Your task to perform on an android device: Open Chrome and go to the settings page Image 0: 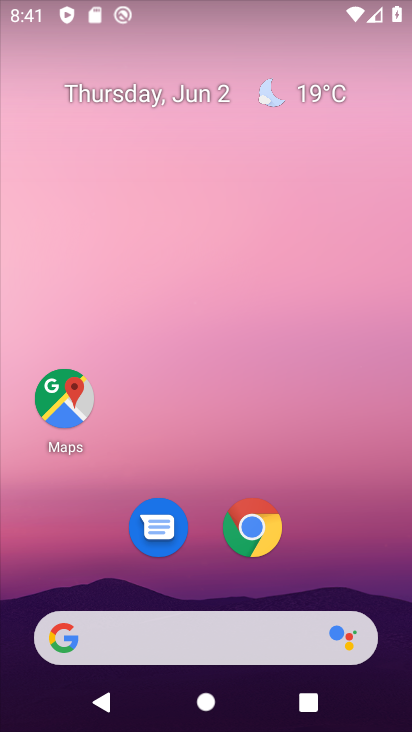
Step 0: click (334, 89)
Your task to perform on an android device: Open Chrome and go to the settings page Image 1: 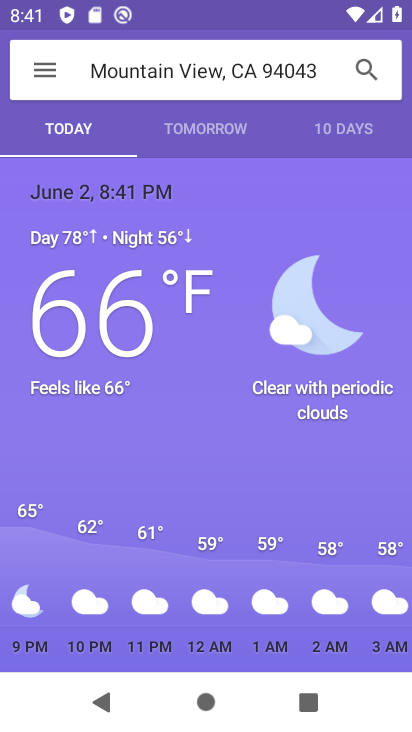
Step 1: press home button
Your task to perform on an android device: Open Chrome and go to the settings page Image 2: 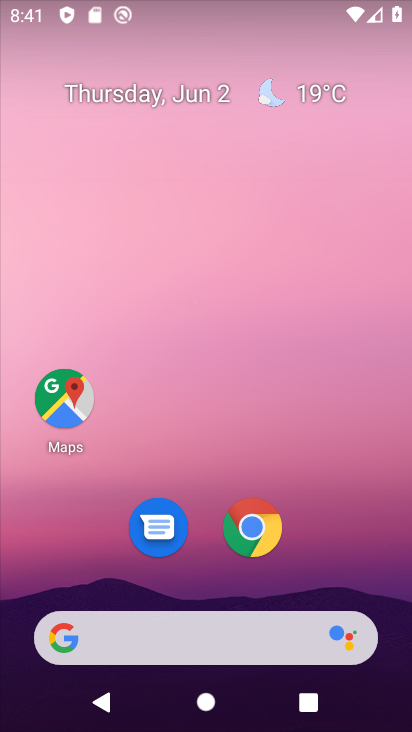
Step 2: click (254, 523)
Your task to perform on an android device: Open Chrome and go to the settings page Image 3: 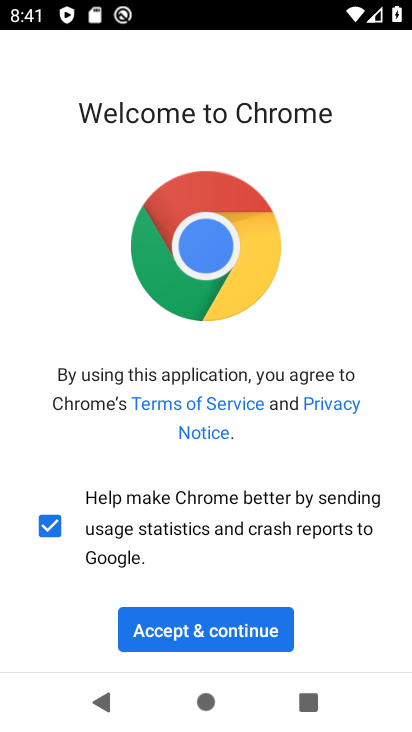
Step 3: click (256, 623)
Your task to perform on an android device: Open Chrome and go to the settings page Image 4: 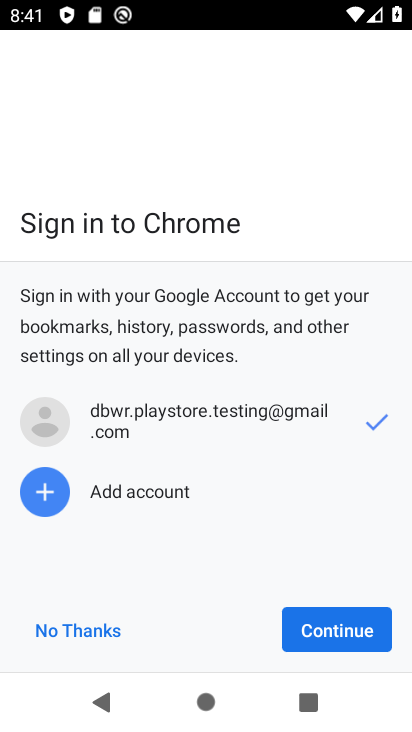
Step 4: click (305, 619)
Your task to perform on an android device: Open Chrome and go to the settings page Image 5: 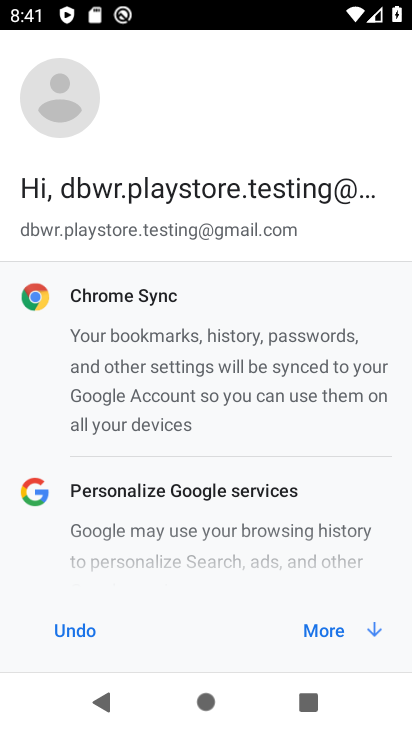
Step 5: click (325, 623)
Your task to perform on an android device: Open Chrome and go to the settings page Image 6: 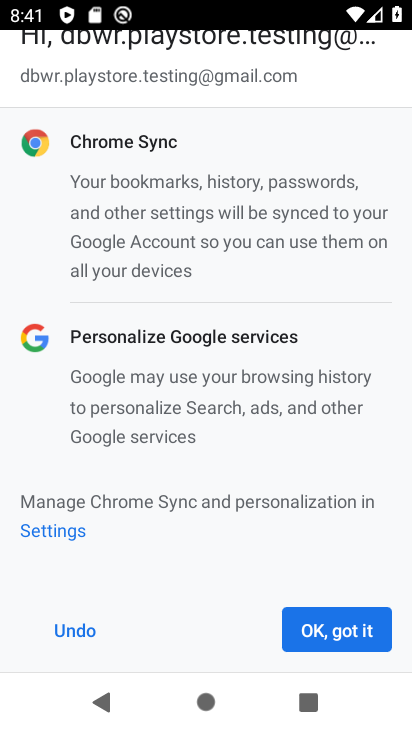
Step 6: click (326, 623)
Your task to perform on an android device: Open Chrome and go to the settings page Image 7: 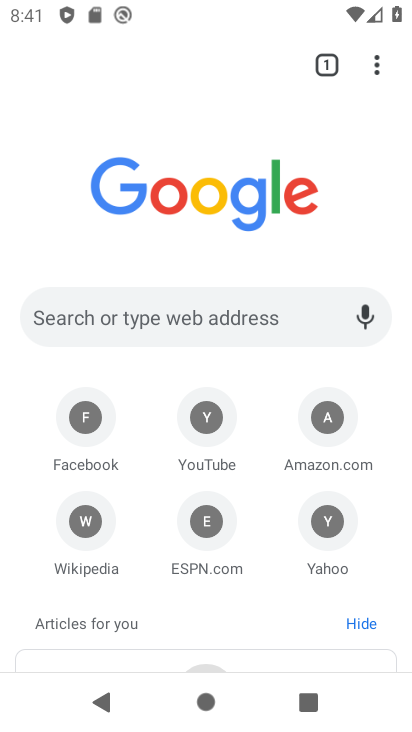
Step 7: task complete